Your task to perform on an android device: Open maps Image 0: 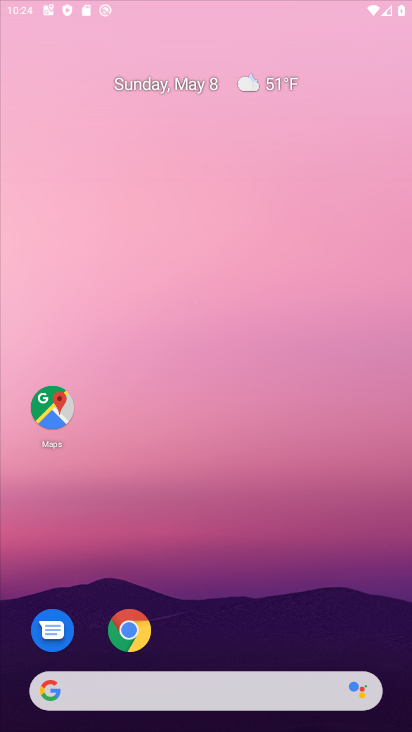
Step 0: drag from (400, 665) to (222, 51)
Your task to perform on an android device: Open maps Image 1: 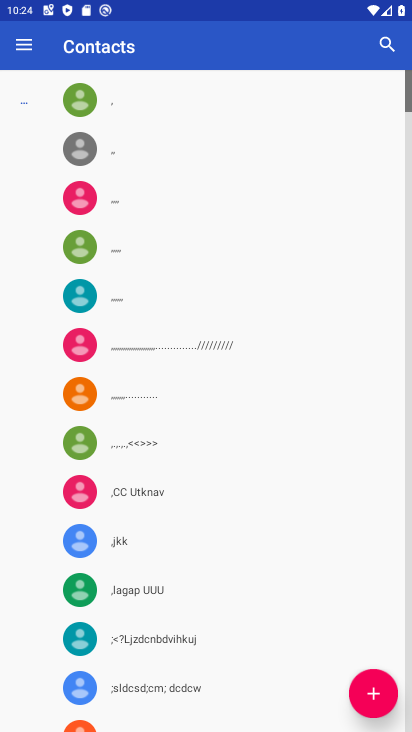
Step 1: press home button
Your task to perform on an android device: Open maps Image 2: 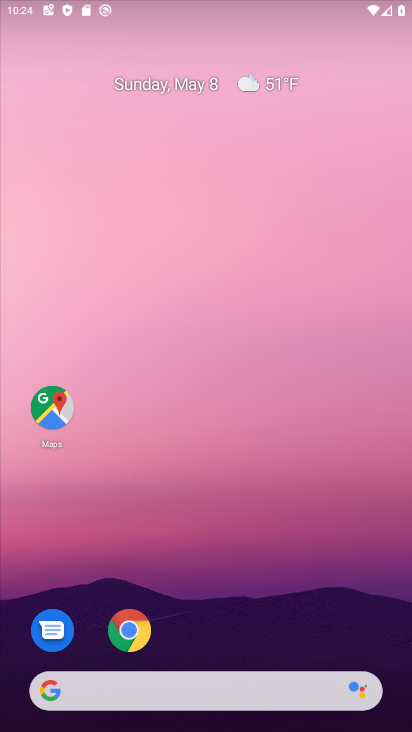
Step 2: drag from (389, 649) to (2, 77)
Your task to perform on an android device: Open maps Image 3: 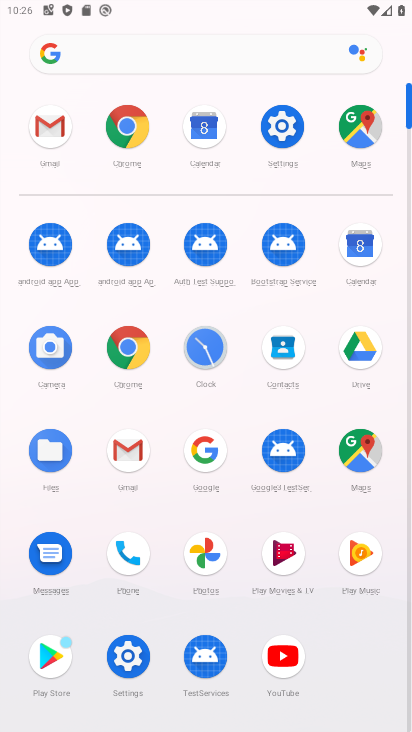
Step 3: click (362, 129)
Your task to perform on an android device: Open maps Image 4: 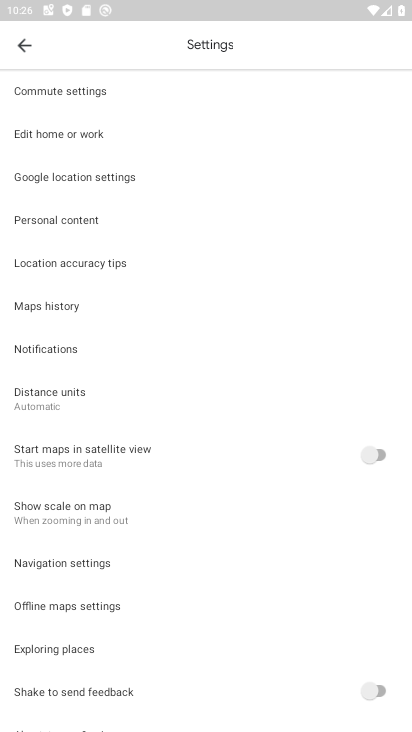
Step 4: click (16, 40)
Your task to perform on an android device: Open maps Image 5: 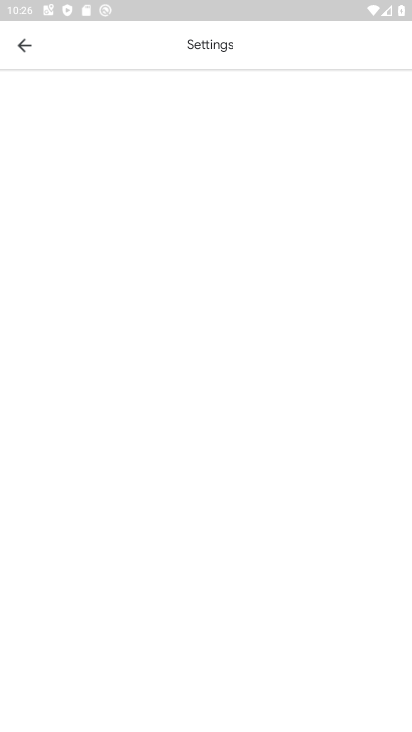
Step 5: press back button
Your task to perform on an android device: Open maps Image 6: 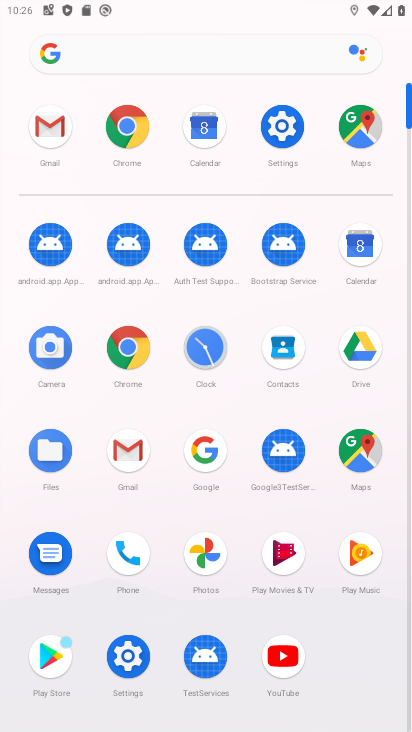
Step 6: click (355, 451)
Your task to perform on an android device: Open maps Image 7: 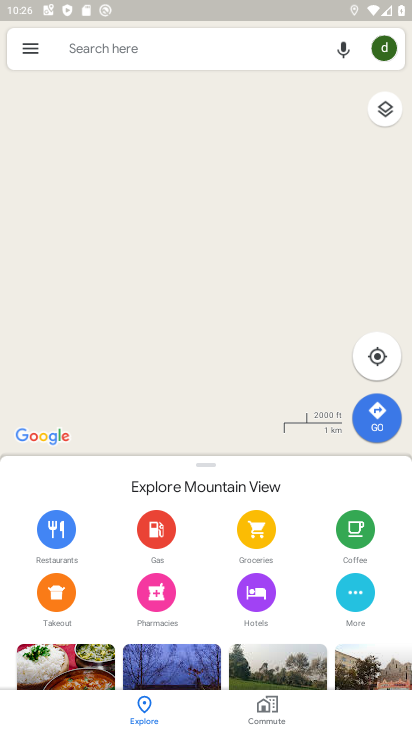
Step 7: task complete